Your task to perform on an android device: Is it going to rain this weekend? Image 0: 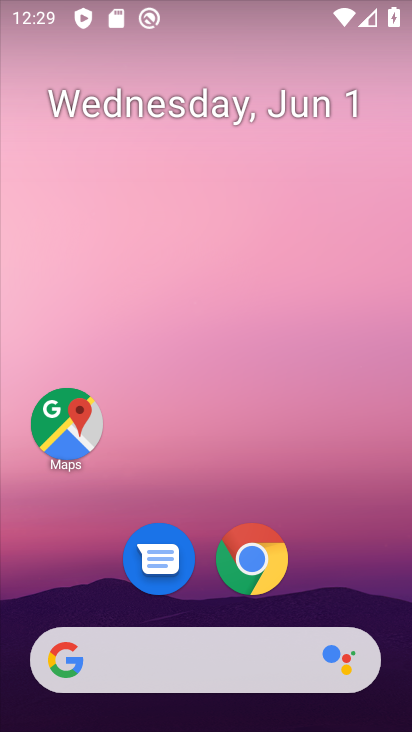
Step 0: drag from (3, 251) to (402, 246)
Your task to perform on an android device: Is it going to rain this weekend? Image 1: 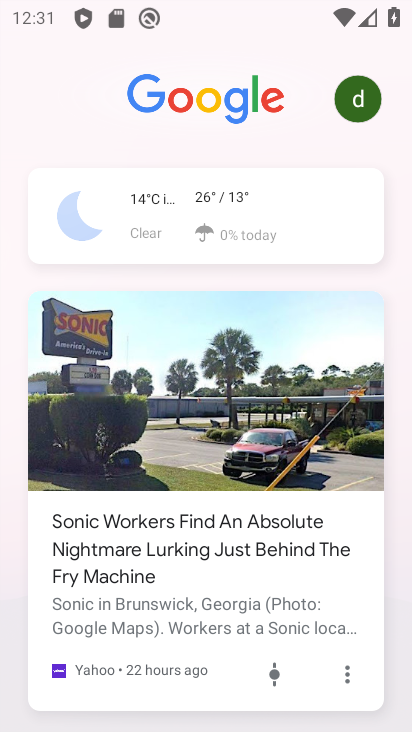
Step 1: click (211, 207)
Your task to perform on an android device: Is it going to rain this weekend? Image 2: 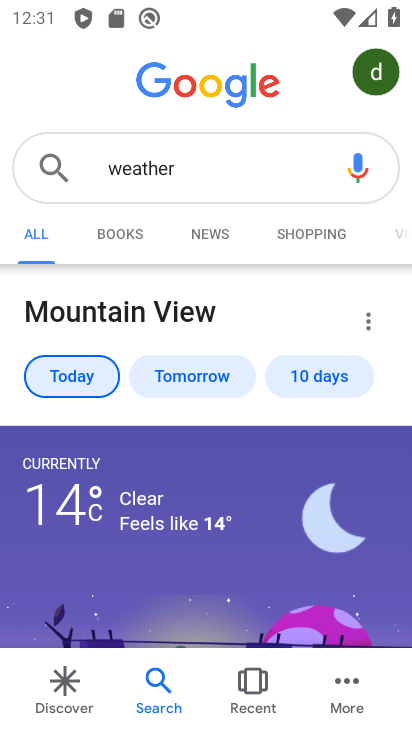
Step 2: click (281, 375)
Your task to perform on an android device: Is it going to rain this weekend? Image 3: 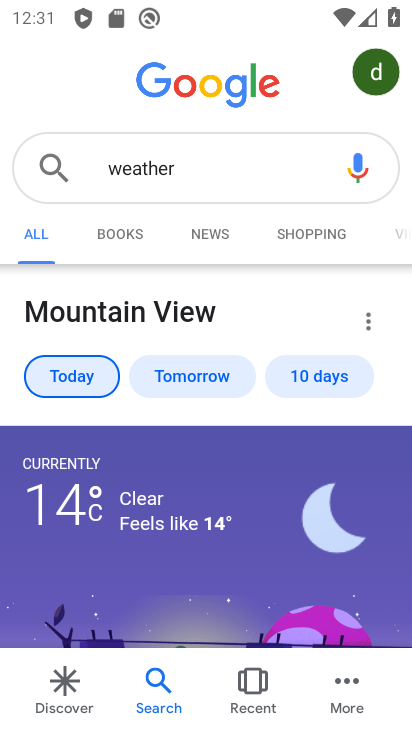
Step 3: click (312, 373)
Your task to perform on an android device: Is it going to rain this weekend? Image 4: 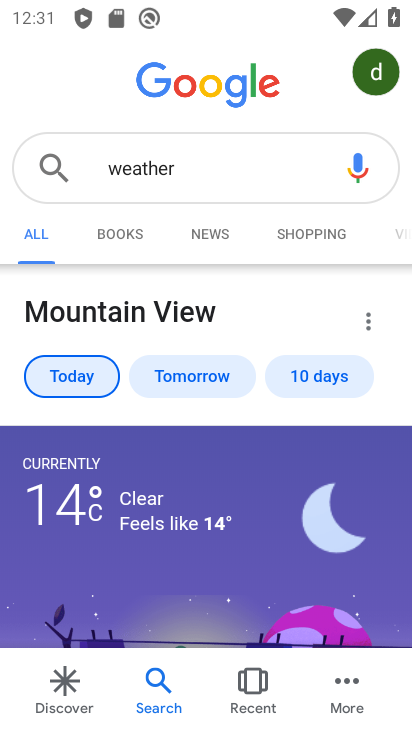
Step 4: click (314, 370)
Your task to perform on an android device: Is it going to rain this weekend? Image 5: 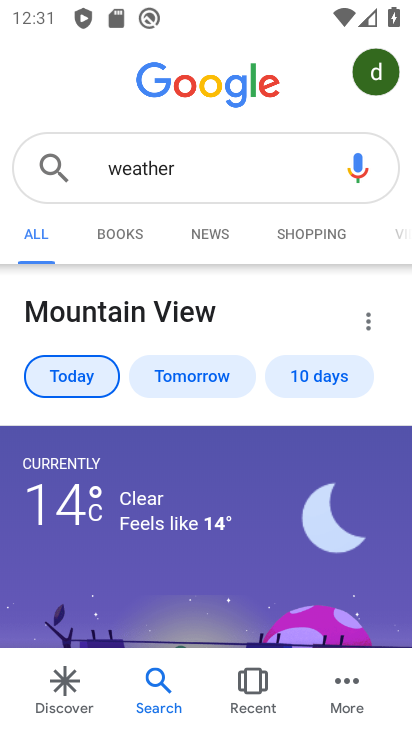
Step 5: click (314, 375)
Your task to perform on an android device: Is it going to rain this weekend? Image 6: 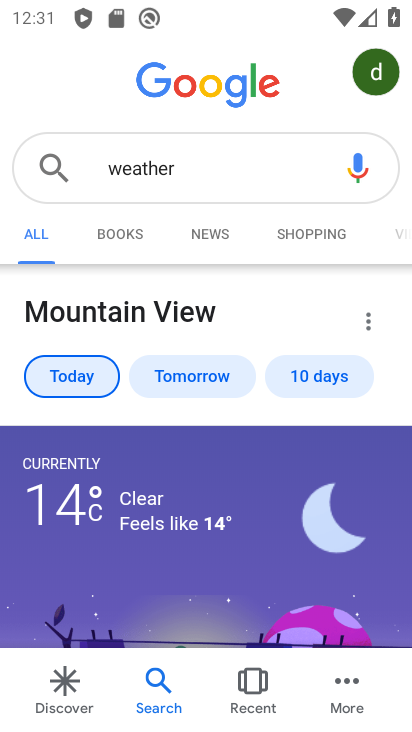
Step 6: click (314, 375)
Your task to perform on an android device: Is it going to rain this weekend? Image 7: 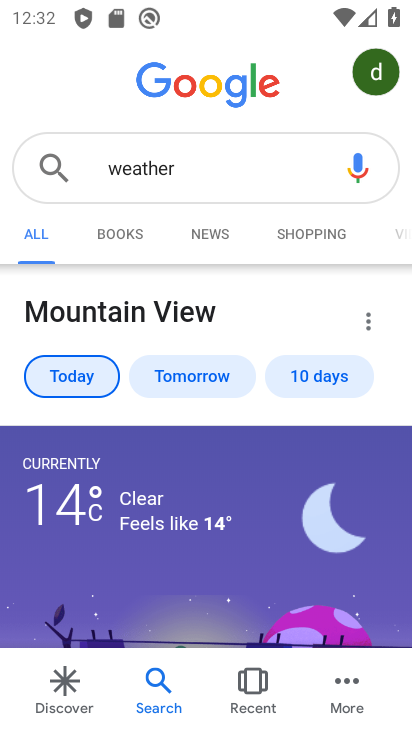
Step 7: click (312, 377)
Your task to perform on an android device: Is it going to rain this weekend? Image 8: 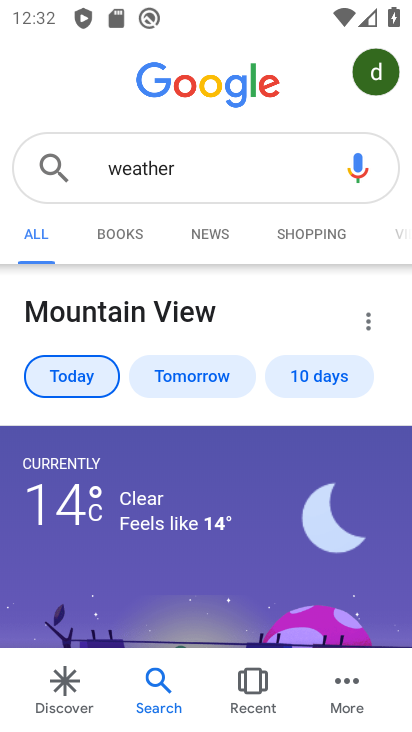
Step 8: task complete